Your task to perform on an android device: Open calendar and show me the fourth week of next month Image 0: 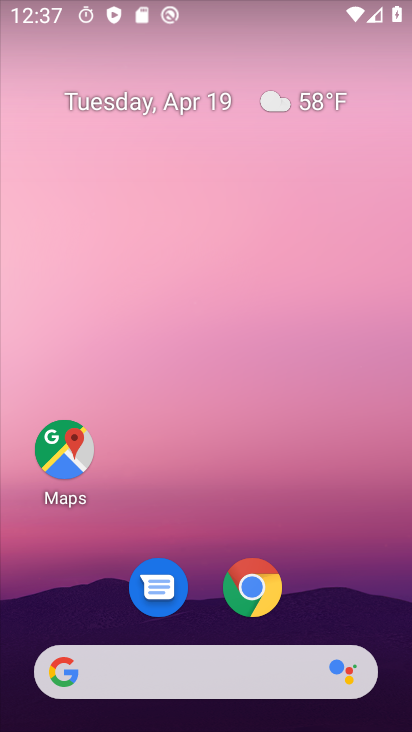
Step 0: drag from (347, 583) to (359, 122)
Your task to perform on an android device: Open calendar and show me the fourth week of next month Image 1: 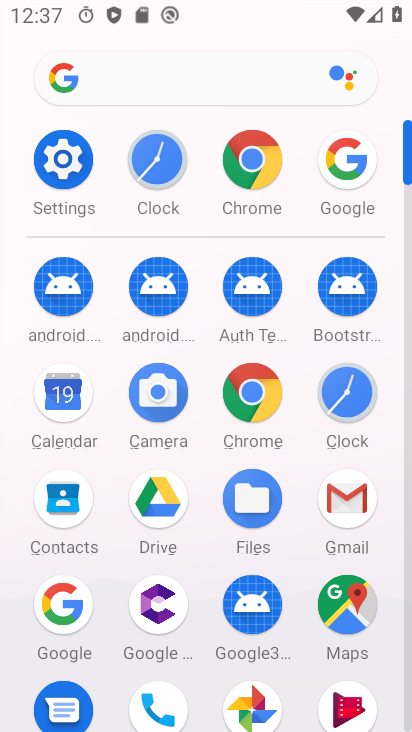
Step 1: click (68, 393)
Your task to perform on an android device: Open calendar and show me the fourth week of next month Image 2: 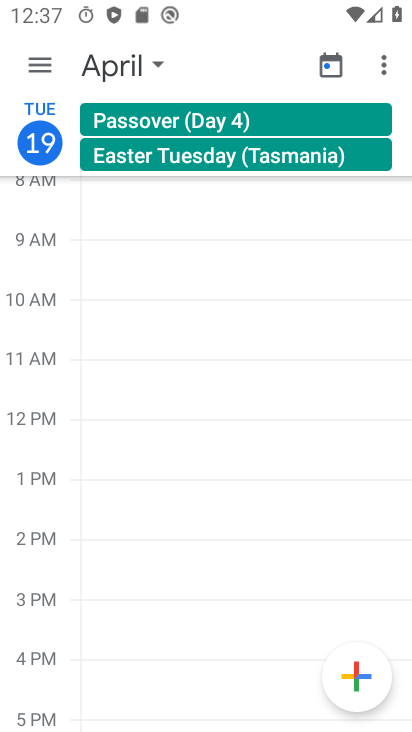
Step 2: click (119, 70)
Your task to perform on an android device: Open calendar and show me the fourth week of next month Image 3: 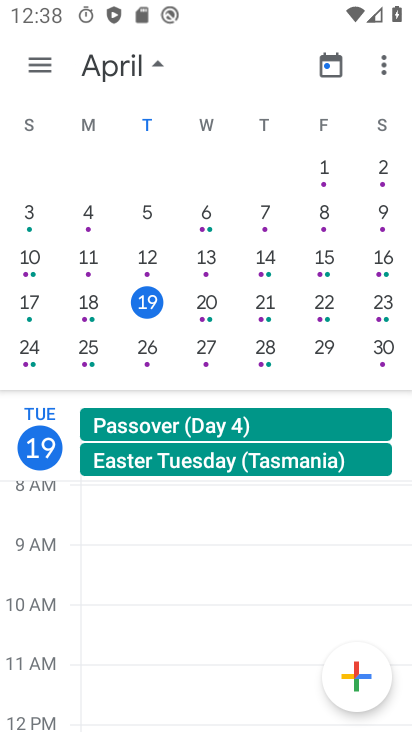
Step 3: drag from (353, 146) to (55, 176)
Your task to perform on an android device: Open calendar and show me the fourth week of next month Image 4: 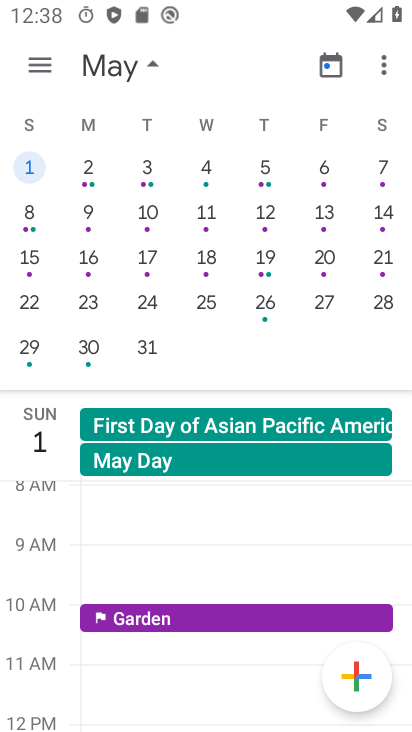
Step 4: click (26, 299)
Your task to perform on an android device: Open calendar and show me the fourth week of next month Image 5: 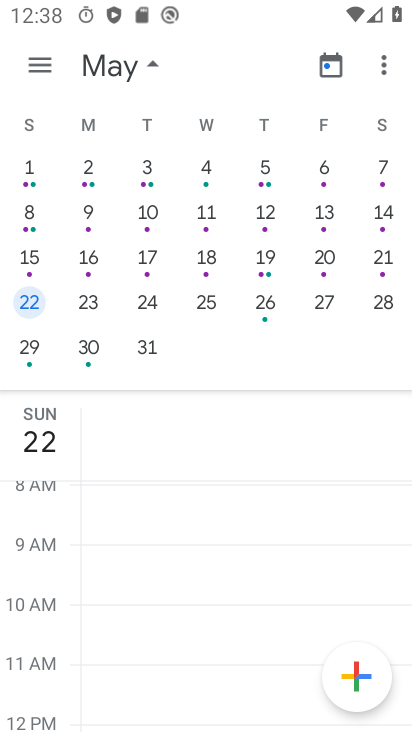
Step 5: task complete